Your task to perform on an android device: Go to internet settings Image 0: 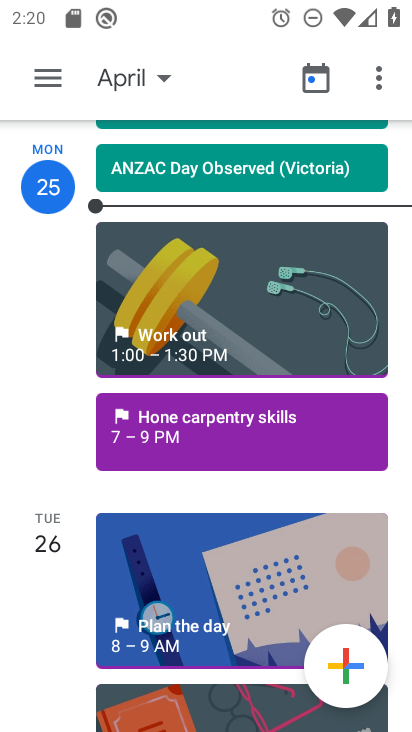
Step 0: press home button
Your task to perform on an android device: Go to internet settings Image 1: 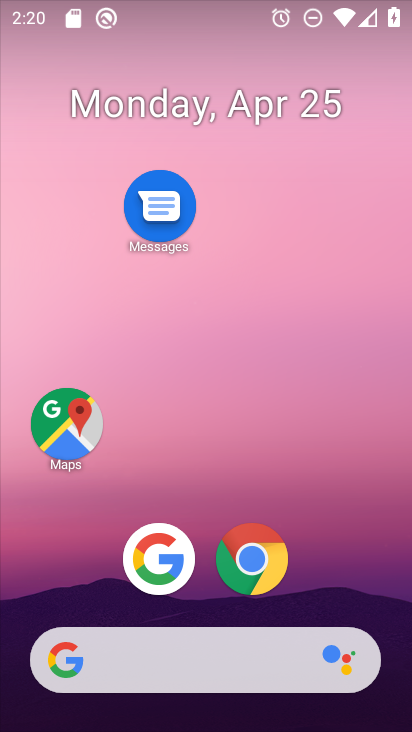
Step 1: drag from (199, 571) to (226, 122)
Your task to perform on an android device: Go to internet settings Image 2: 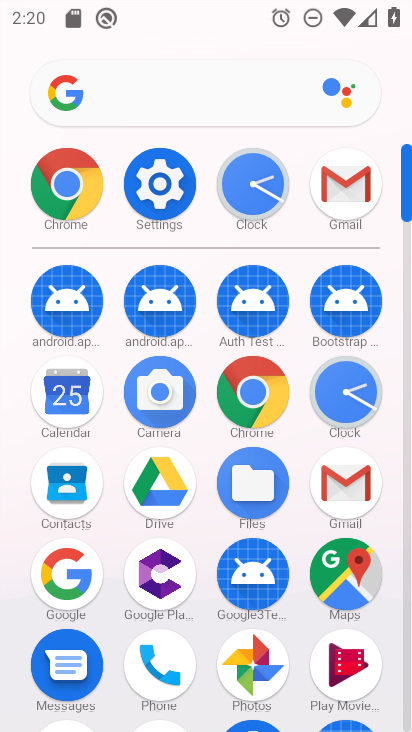
Step 2: click (162, 183)
Your task to perform on an android device: Go to internet settings Image 3: 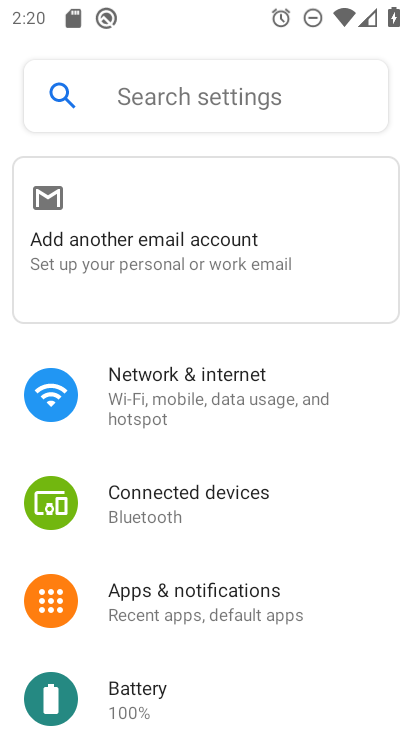
Step 3: click (168, 398)
Your task to perform on an android device: Go to internet settings Image 4: 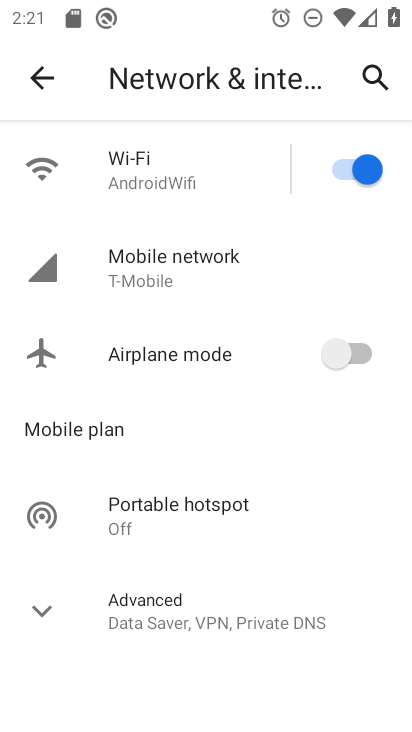
Step 4: click (167, 178)
Your task to perform on an android device: Go to internet settings Image 5: 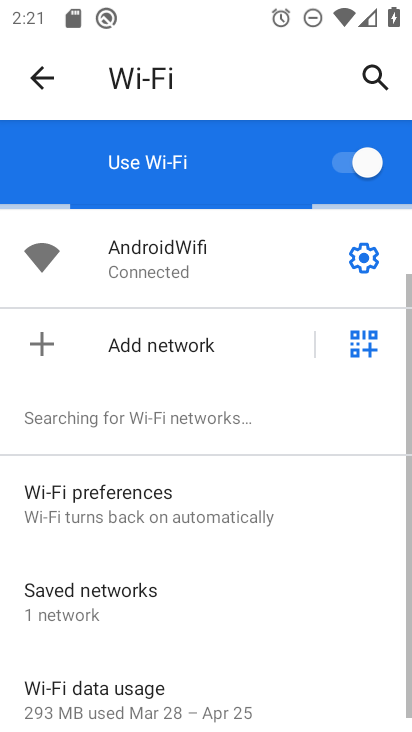
Step 5: click (361, 245)
Your task to perform on an android device: Go to internet settings Image 6: 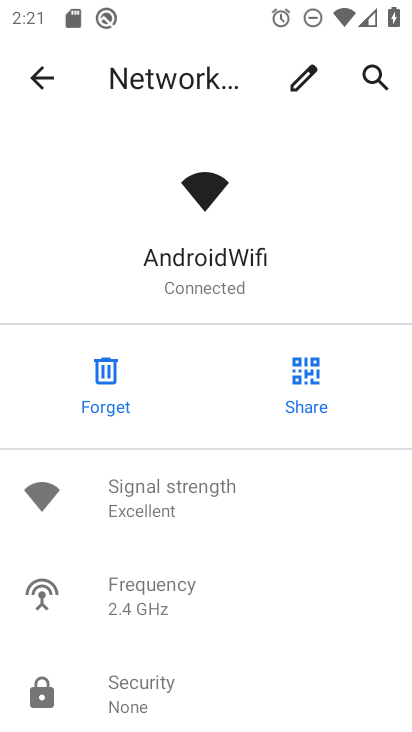
Step 6: task complete